Your task to perform on an android device: turn off improve location accuracy Image 0: 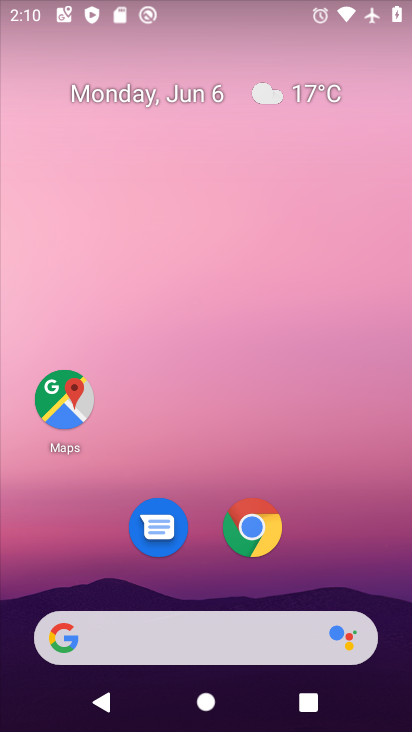
Step 0: press home button
Your task to perform on an android device: turn off improve location accuracy Image 1: 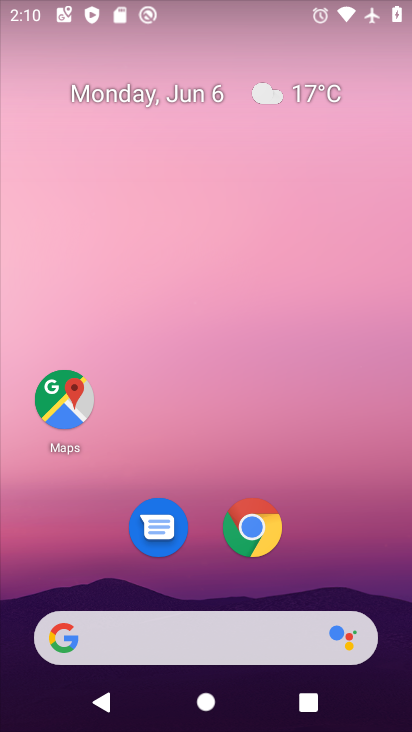
Step 1: drag from (324, 474) to (173, 24)
Your task to perform on an android device: turn off improve location accuracy Image 2: 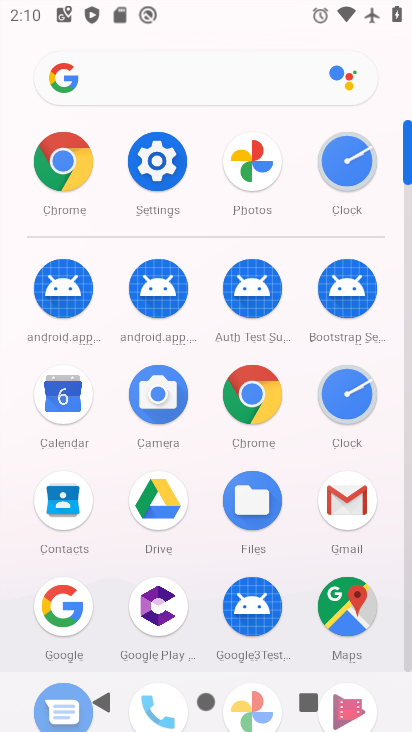
Step 2: click (171, 162)
Your task to perform on an android device: turn off improve location accuracy Image 3: 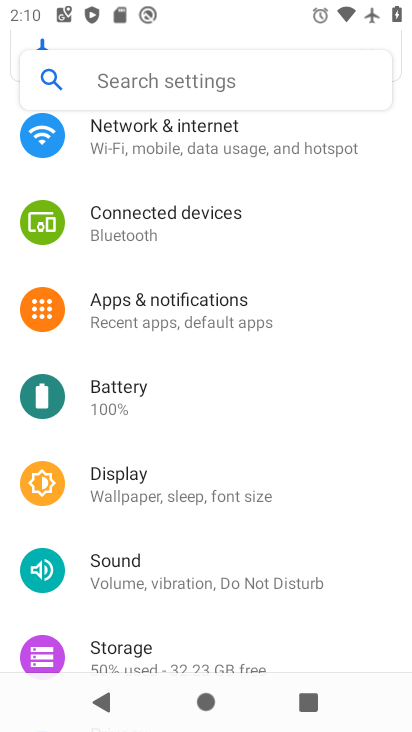
Step 3: drag from (214, 547) to (234, 28)
Your task to perform on an android device: turn off improve location accuracy Image 4: 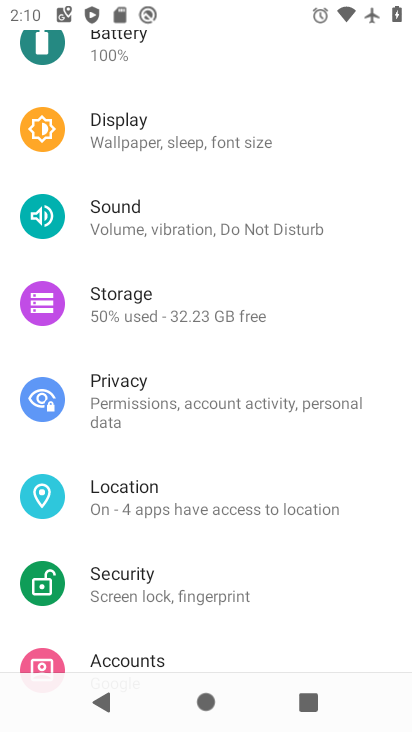
Step 4: click (188, 481)
Your task to perform on an android device: turn off improve location accuracy Image 5: 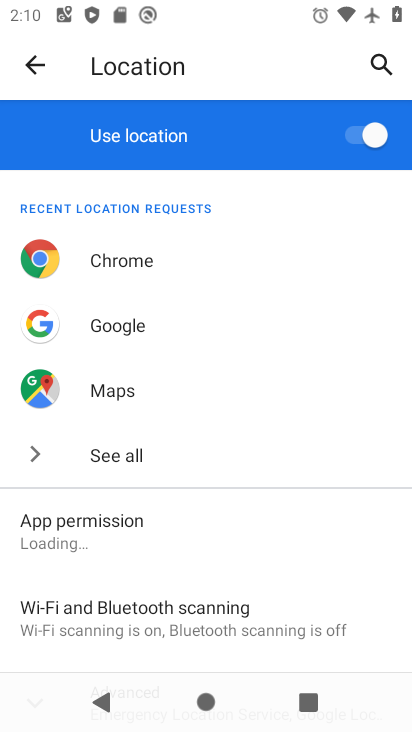
Step 5: drag from (226, 538) to (173, 72)
Your task to perform on an android device: turn off improve location accuracy Image 6: 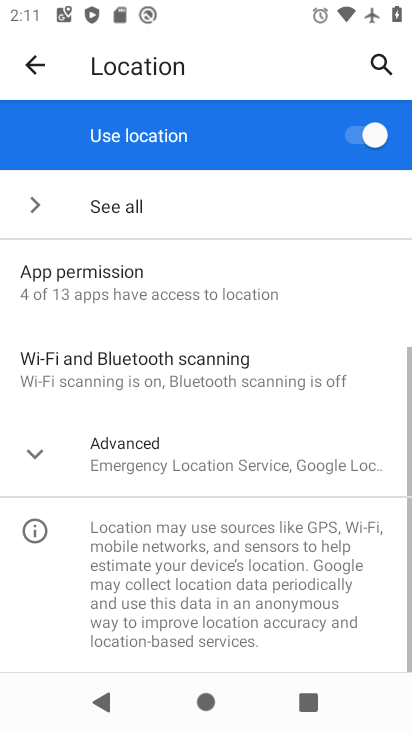
Step 6: click (156, 459)
Your task to perform on an android device: turn off improve location accuracy Image 7: 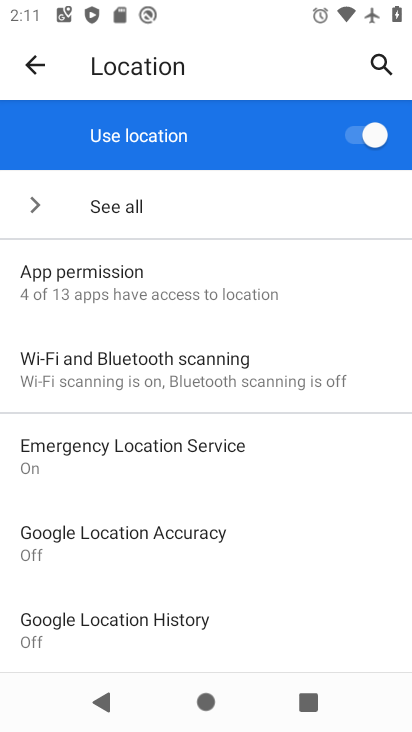
Step 7: click (217, 526)
Your task to perform on an android device: turn off improve location accuracy Image 8: 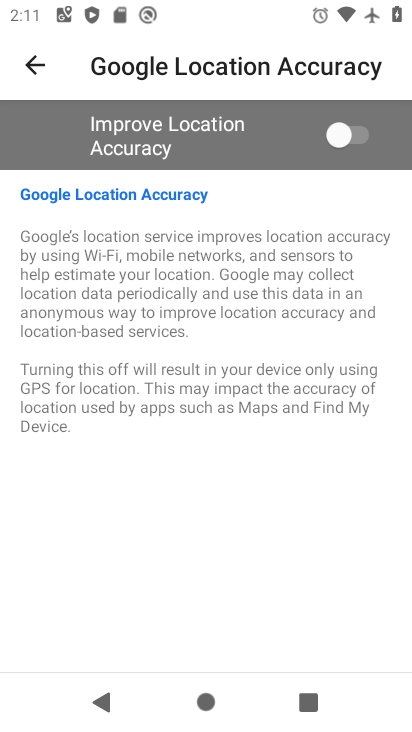
Step 8: task complete